Your task to perform on an android device: Go to wifi settings Image 0: 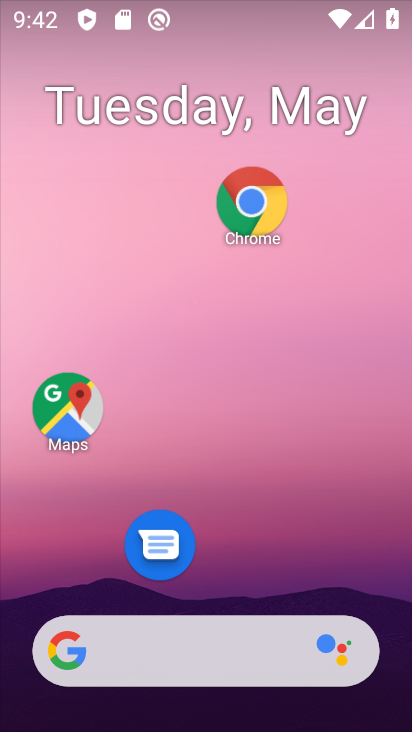
Step 0: drag from (395, 609) to (326, 86)
Your task to perform on an android device: Go to wifi settings Image 1: 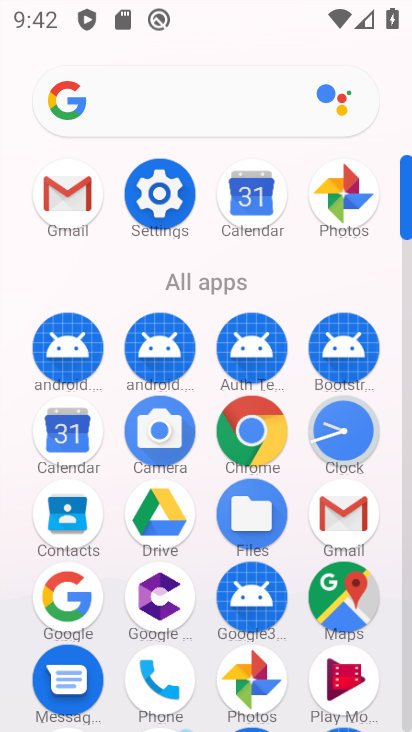
Step 1: click (158, 207)
Your task to perform on an android device: Go to wifi settings Image 2: 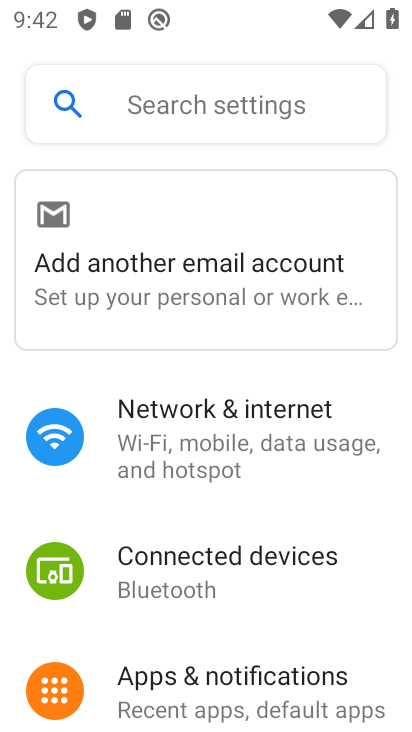
Step 2: click (204, 399)
Your task to perform on an android device: Go to wifi settings Image 3: 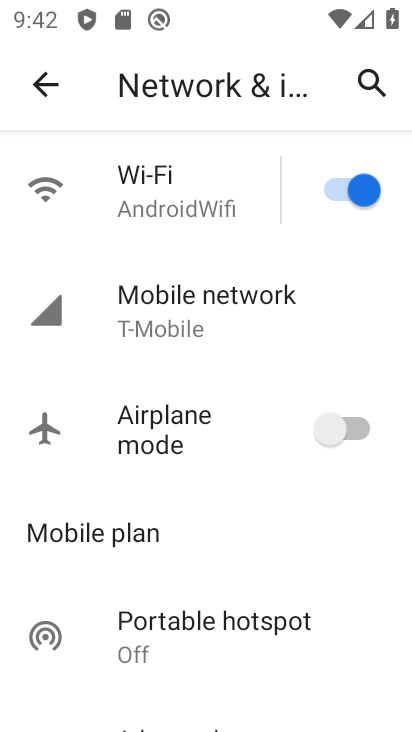
Step 3: click (146, 208)
Your task to perform on an android device: Go to wifi settings Image 4: 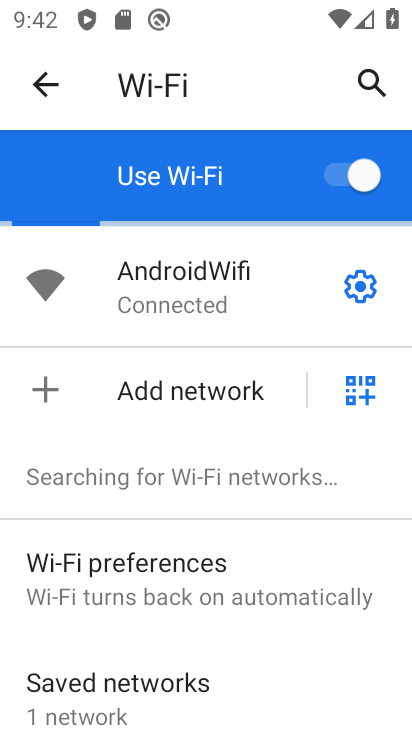
Step 4: task complete